Your task to perform on an android device: Show me popular videos on Youtube Image 0: 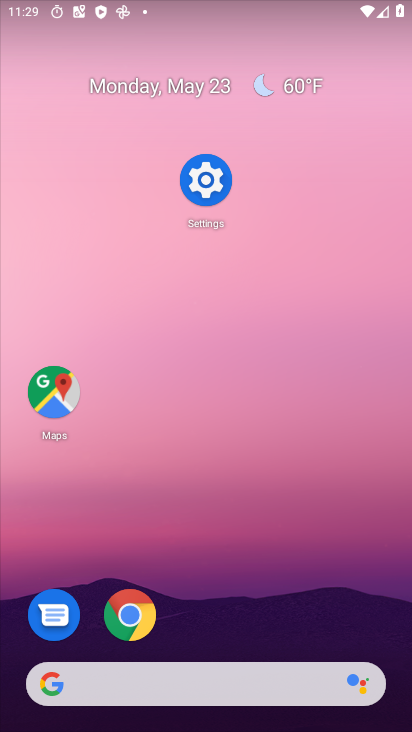
Step 0: drag from (221, 571) to (228, 102)
Your task to perform on an android device: Show me popular videos on Youtube Image 1: 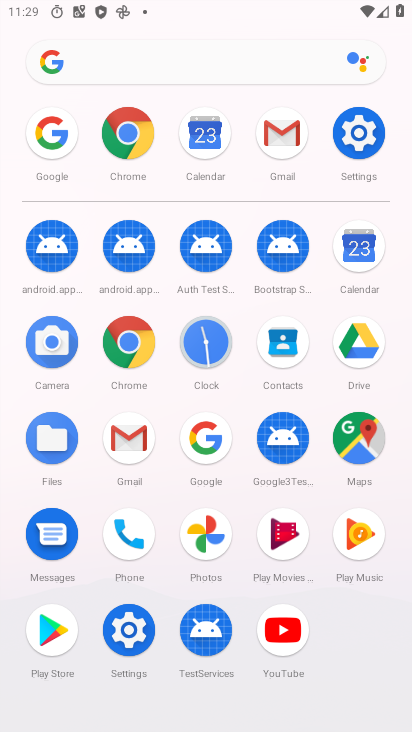
Step 1: click (281, 627)
Your task to perform on an android device: Show me popular videos on Youtube Image 2: 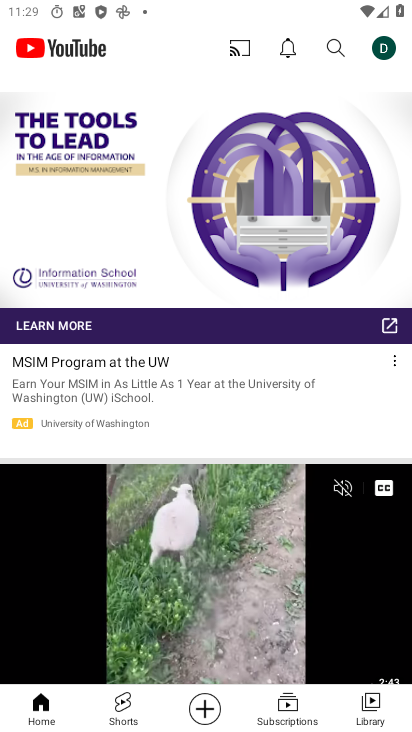
Step 2: task complete